Your task to perform on an android device: open the mobile data screen to see how much data has been used Image 0: 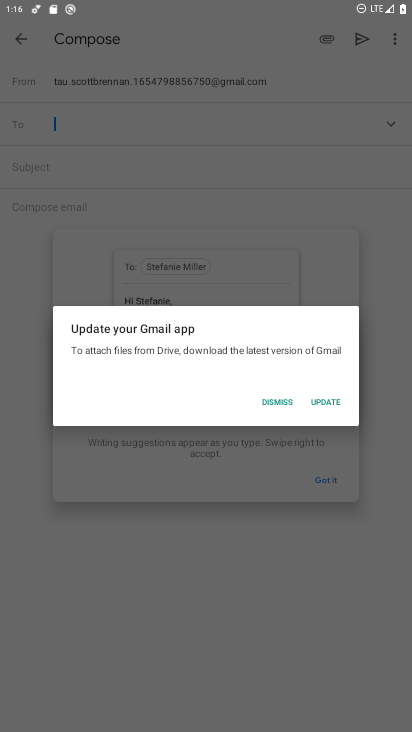
Step 0: press home button
Your task to perform on an android device: open the mobile data screen to see how much data has been used Image 1: 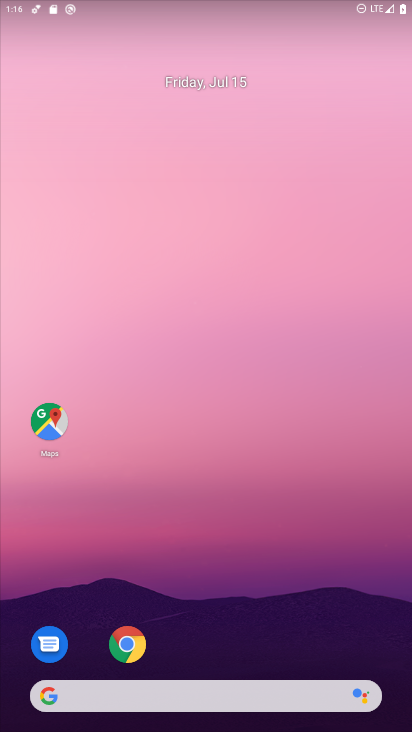
Step 1: drag from (9, 696) to (283, 131)
Your task to perform on an android device: open the mobile data screen to see how much data has been used Image 2: 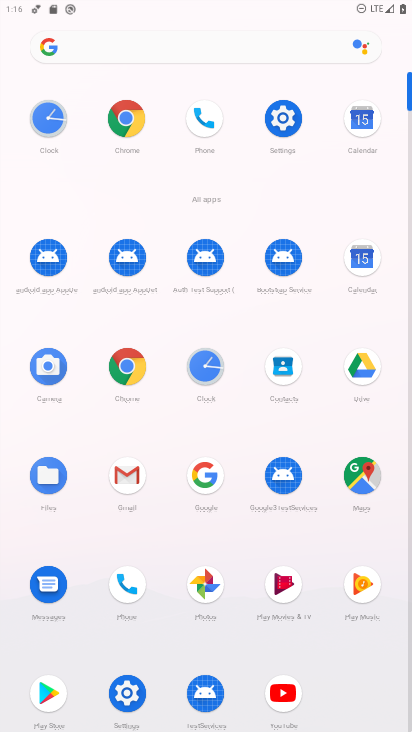
Step 2: click (275, 115)
Your task to perform on an android device: open the mobile data screen to see how much data has been used Image 3: 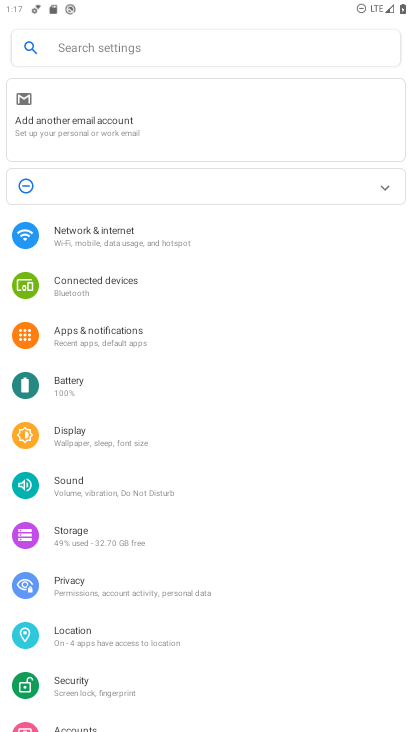
Step 3: click (65, 243)
Your task to perform on an android device: open the mobile data screen to see how much data has been used Image 4: 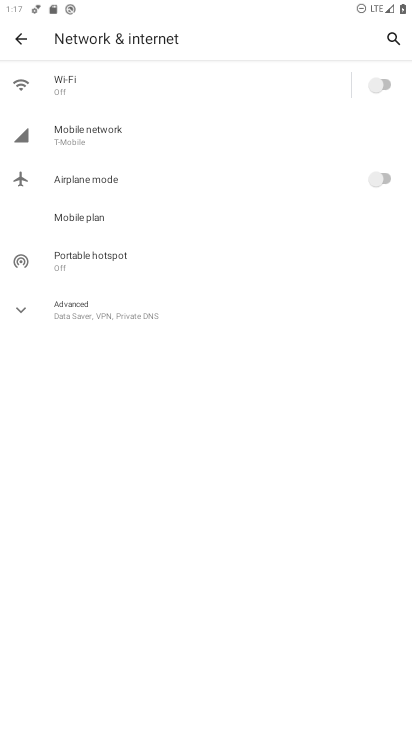
Step 4: click (134, 145)
Your task to perform on an android device: open the mobile data screen to see how much data has been used Image 5: 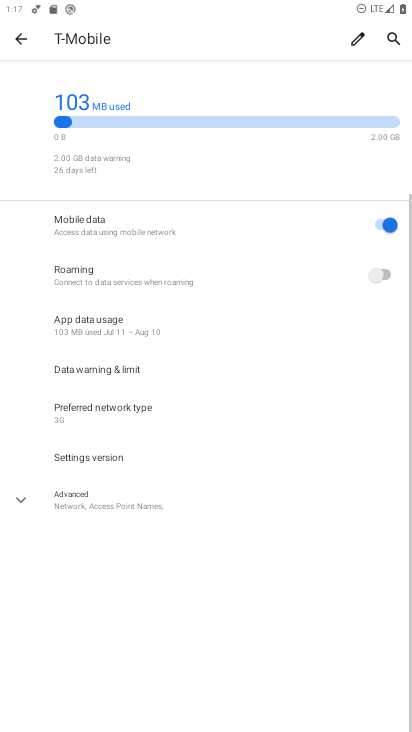
Step 5: task complete